Your task to perform on an android device: turn on translation in the chrome app Image 0: 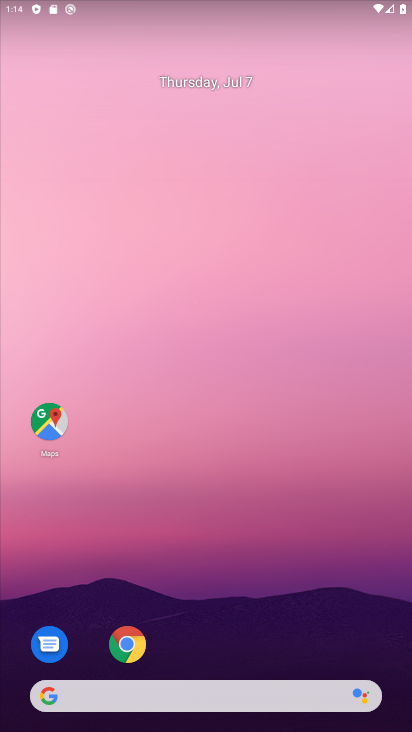
Step 0: drag from (82, 371) to (110, 254)
Your task to perform on an android device: turn on translation in the chrome app Image 1: 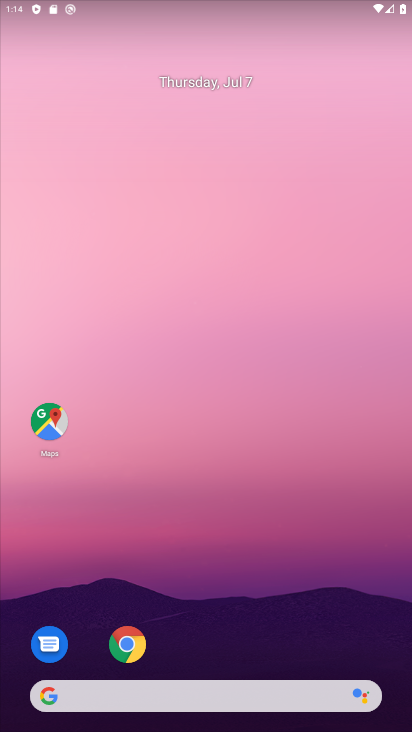
Step 1: drag from (13, 707) to (128, 120)
Your task to perform on an android device: turn on translation in the chrome app Image 2: 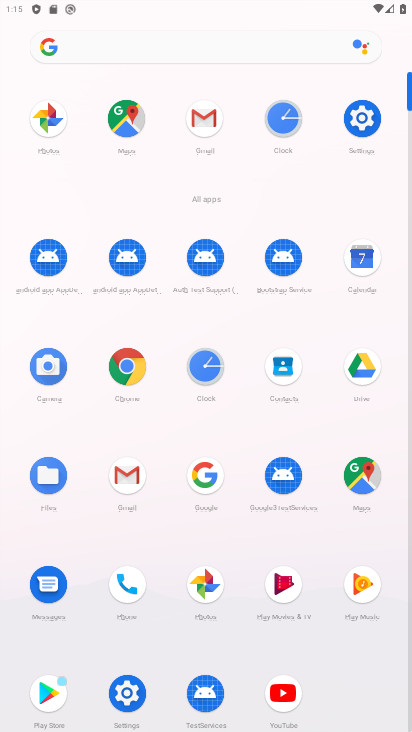
Step 2: click (115, 361)
Your task to perform on an android device: turn on translation in the chrome app Image 3: 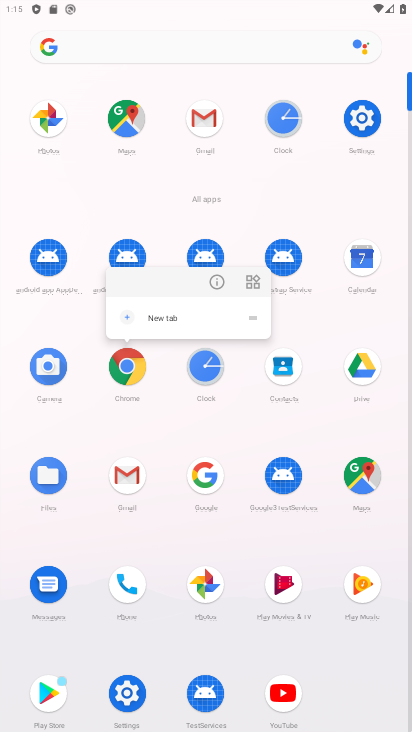
Step 3: click (123, 372)
Your task to perform on an android device: turn on translation in the chrome app Image 4: 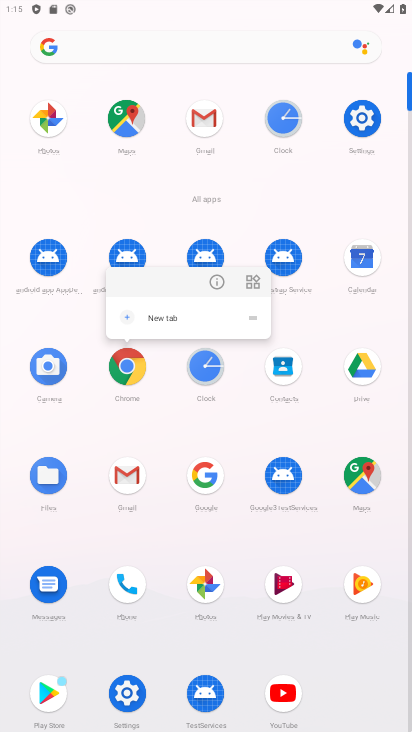
Step 4: click (123, 372)
Your task to perform on an android device: turn on translation in the chrome app Image 5: 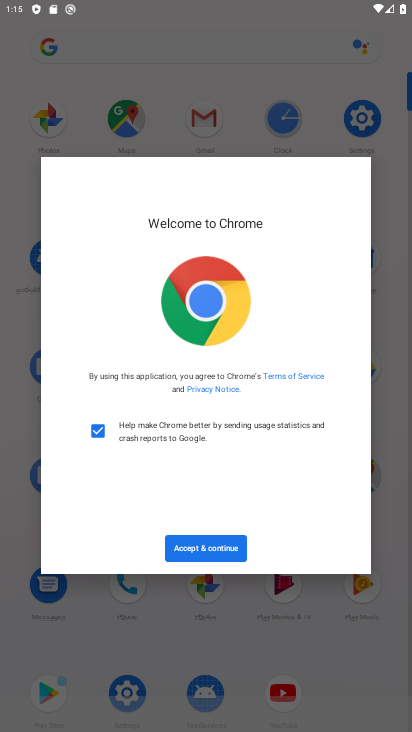
Step 5: click (228, 556)
Your task to perform on an android device: turn on translation in the chrome app Image 6: 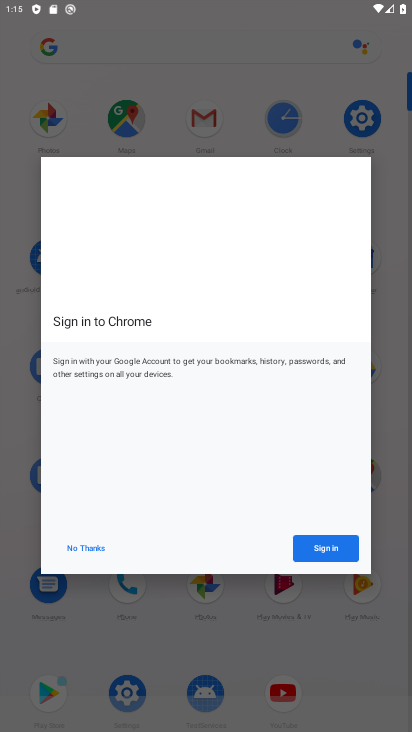
Step 6: click (328, 537)
Your task to perform on an android device: turn on translation in the chrome app Image 7: 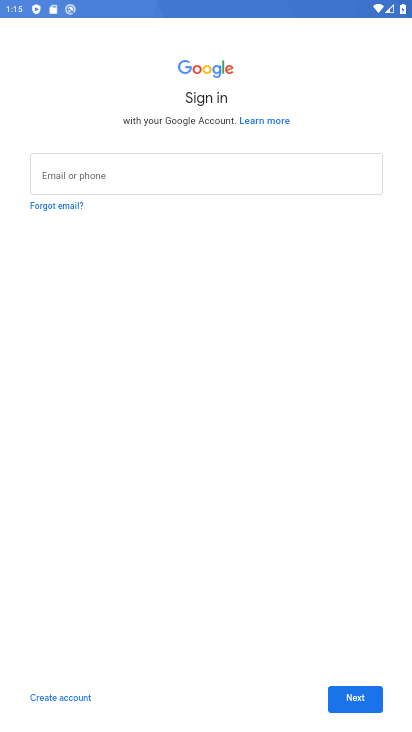
Step 7: task complete